Your task to perform on an android device: What's on my calendar tomorrow? Image 0: 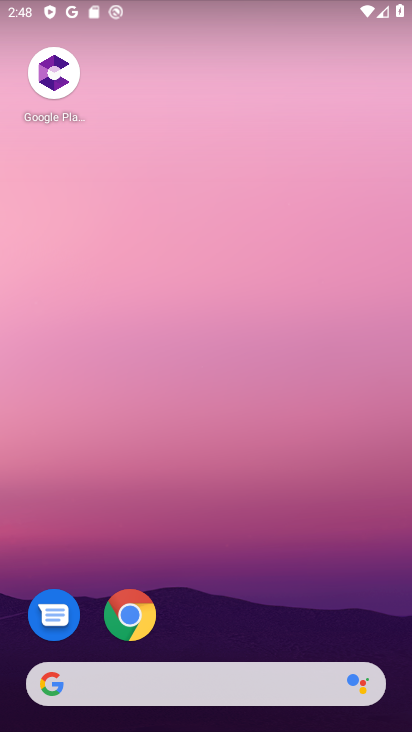
Step 0: drag from (214, 624) to (256, 139)
Your task to perform on an android device: What's on my calendar tomorrow? Image 1: 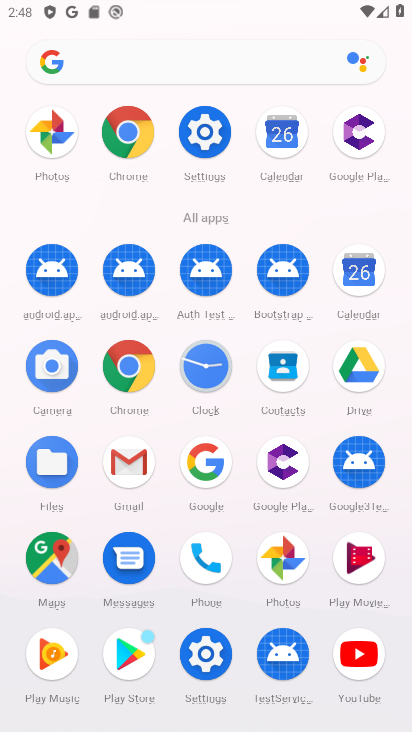
Step 1: click (354, 298)
Your task to perform on an android device: What's on my calendar tomorrow? Image 2: 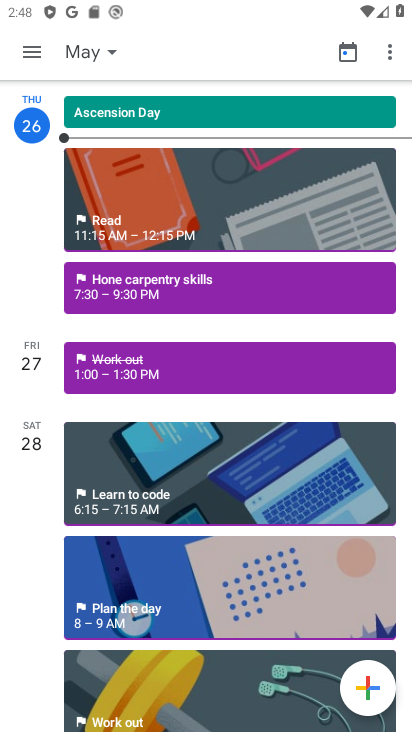
Step 2: task complete